Your task to perform on an android device: Go to calendar. Show me events next week Image 0: 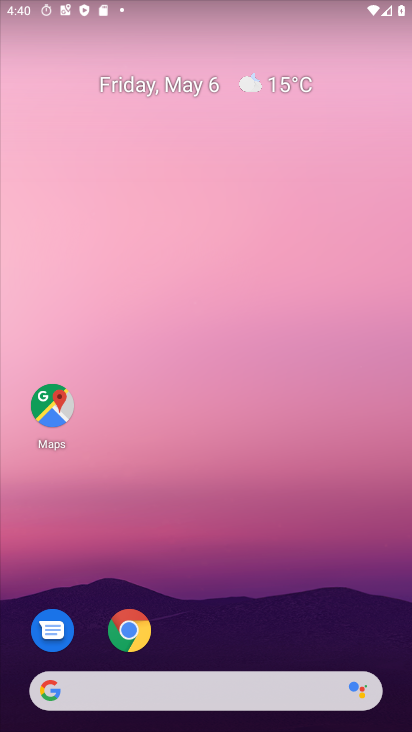
Step 0: drag from (262, 532) to (310, 106)
Your task to perform on an android device: Go to calendar. Show me events next week Image 1: 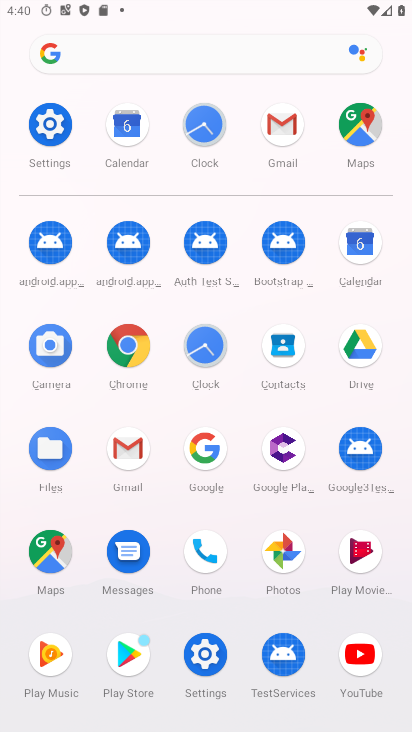
Step 1: click (363, 251)
Your task to perform on an android device: Go to calendar. Show me events next week Image 2: 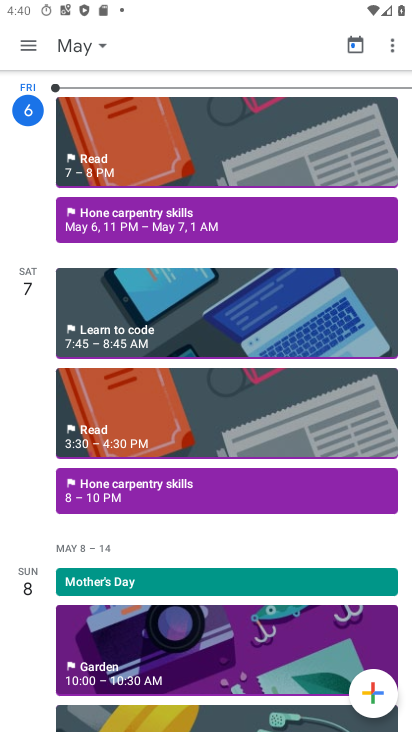
Step 2: click (93, 43)
Your task to perform on an android device: Go to calendar. Show me events next week Image 3: 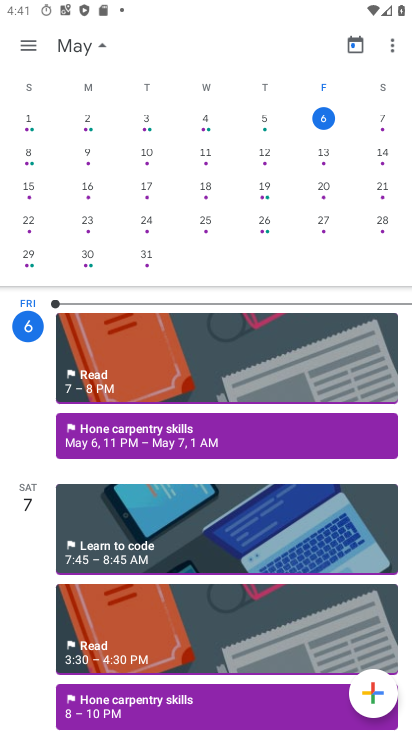
Step 3: click (86, 150)
Your task to perform on an android device: Go to calendar. Show me events next week Image 4: 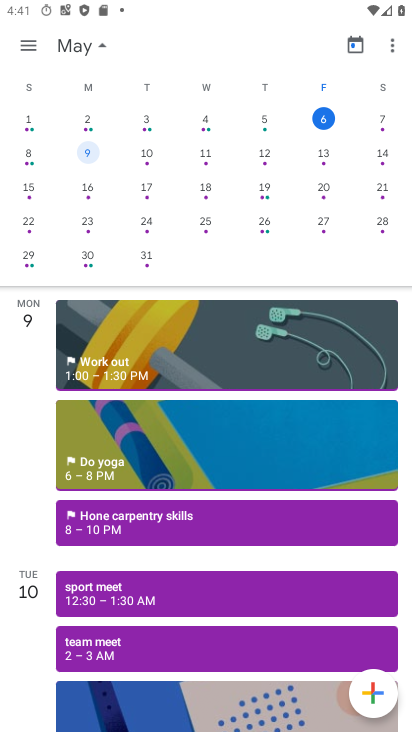
Step 4: drag from (158, 558) to (300, 18)
Your task to perform on an android device: Go to calendar. Show me events next week Image 5: 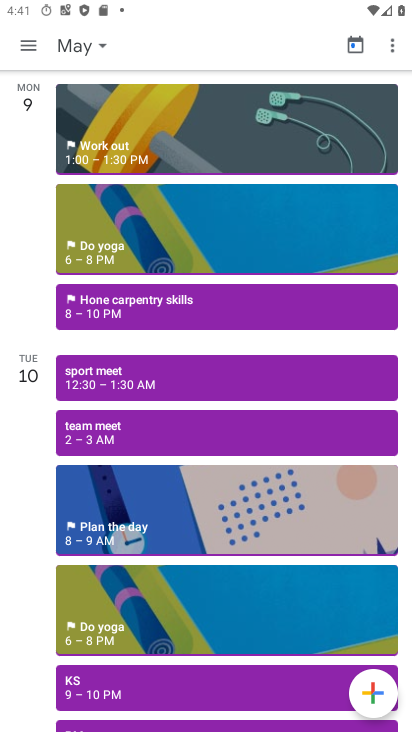
Step 5: click (120, 428)
Your task to perform on an android device: Go to calendar. Show me events next week Image 6: 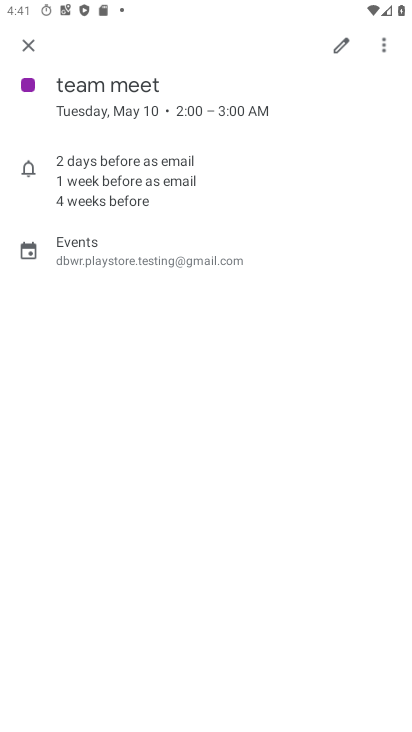
Step 6: task complete